Your task to perform on an android device: turn off wifi Image 0: 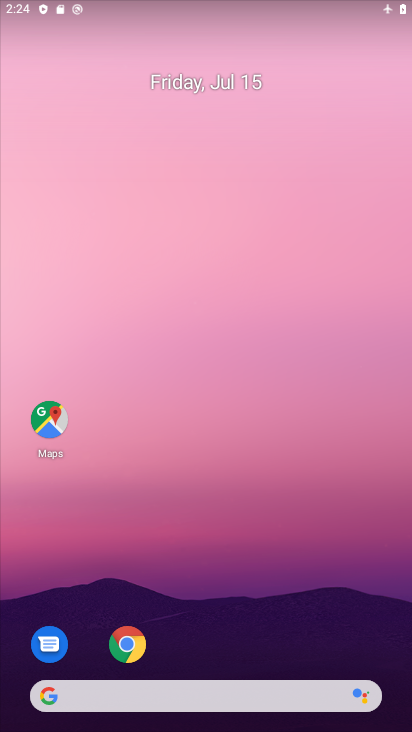
Step 0: drag from (269, 625) to (233, 17)
Your task to perform on an android device: turn off wifi Image 1: 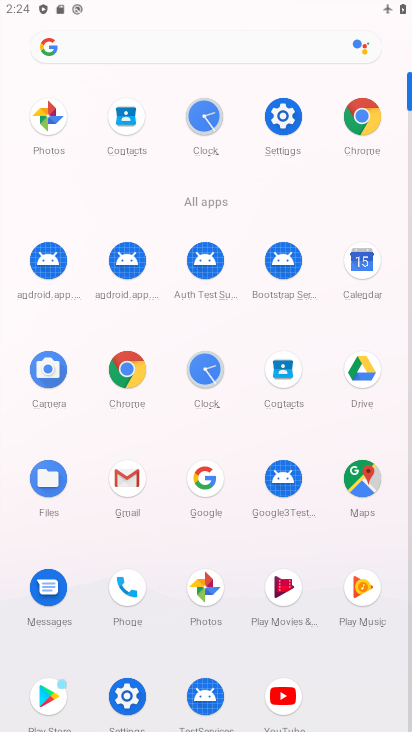
Step 1: click (291, 115)
Your task to perform on an android device: turn off wifi Image 2: 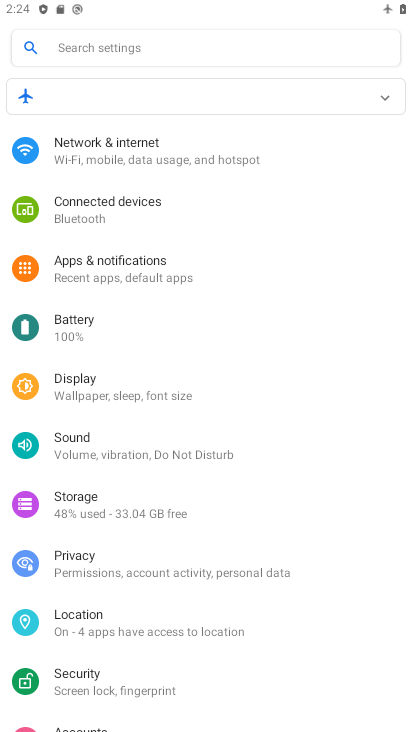
Step 2: click (177, 158)
Your task to perform on an android device: turn off wifi Image 3: 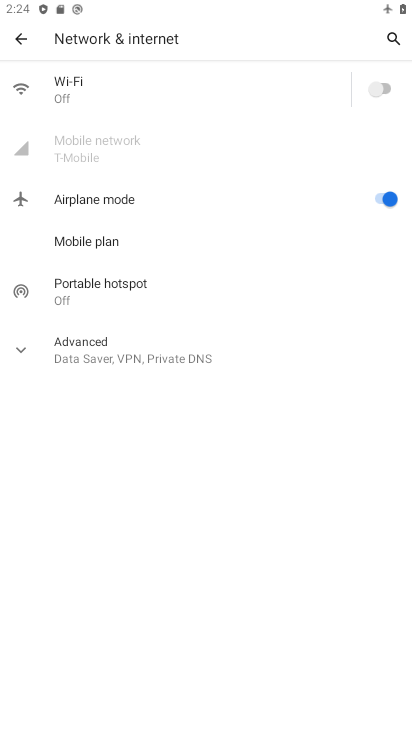
Step 3: task complete